Your task to perform on an android device: Open Google Image 0: 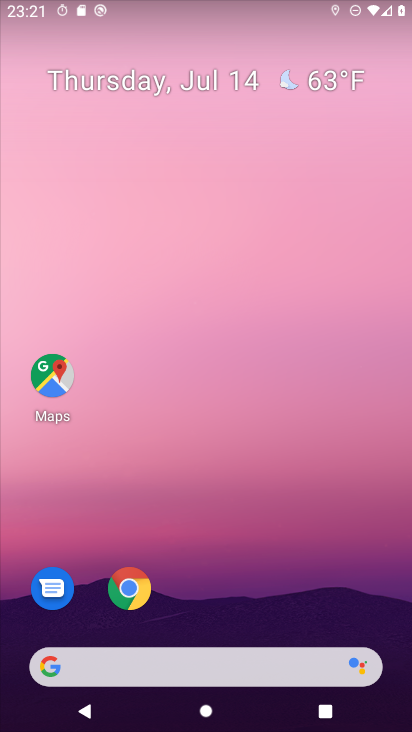
Step 0: drag from (334, 576) to (370, 63)
Your task to perform on an android device: Open Google Image 1: 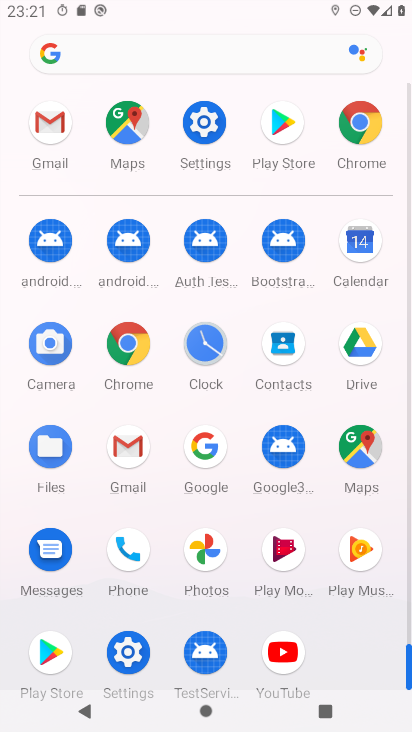
Step 1: click (212, 451)
Your task to perform on an android device: Open Google Image 2: 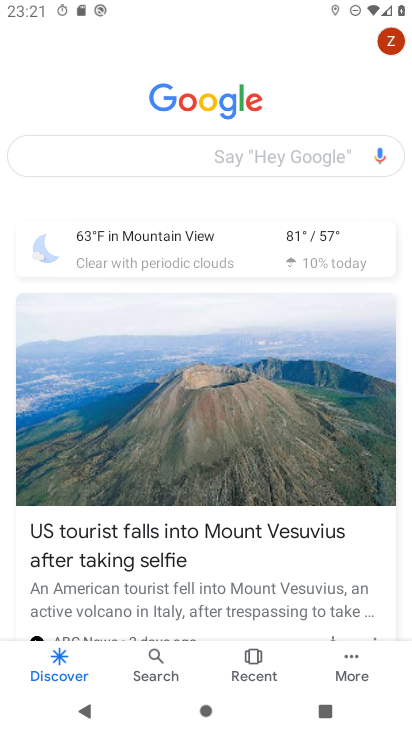
Step 2: task complete